Your task to perform on an android device: turn on showing notifications on the lock screen Image 0: 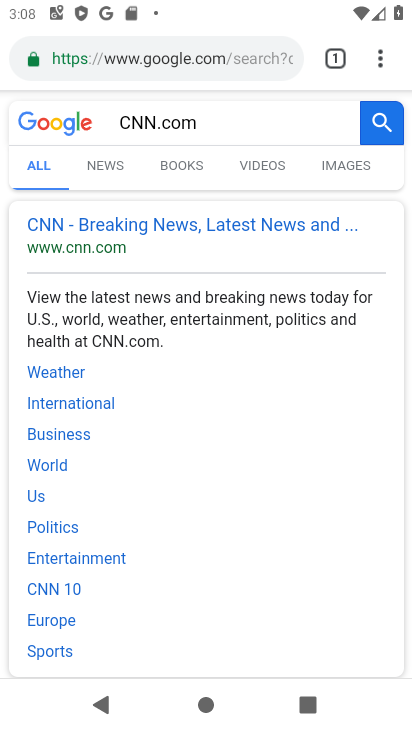
Step 0: press home button
Your task to perform on an android device: turn on showing notifications on the lock screen Image 1: 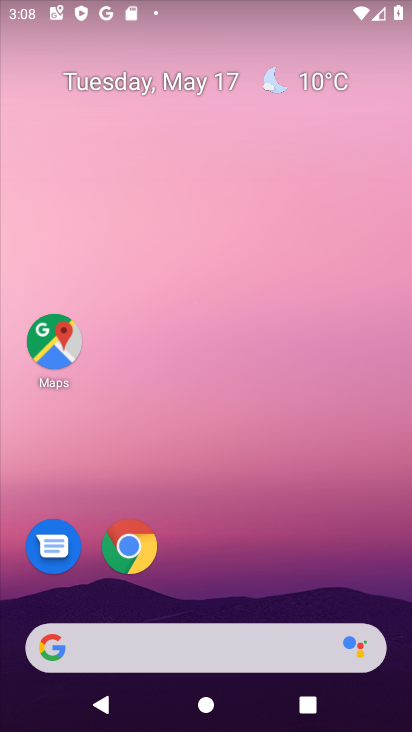
Step 1: drag from (196, 490) to (271, 0)
Your task to perform on an android device: turn on showing notifications on the lock screen Image 2: 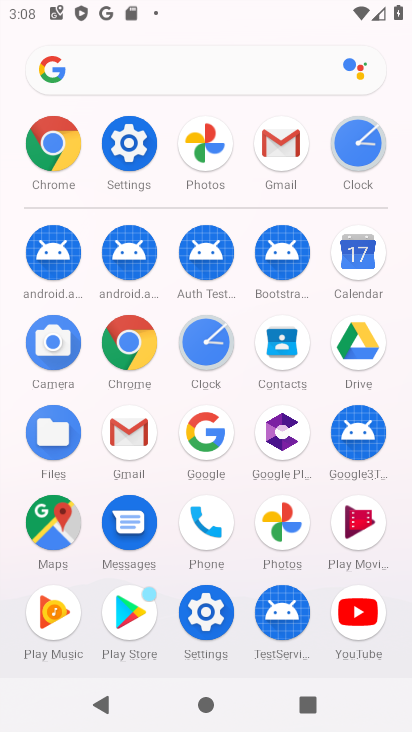
Step 2: click (123, 171)
Your task to perform on an android device: turn on showing notifications on the lock screen Image 3: 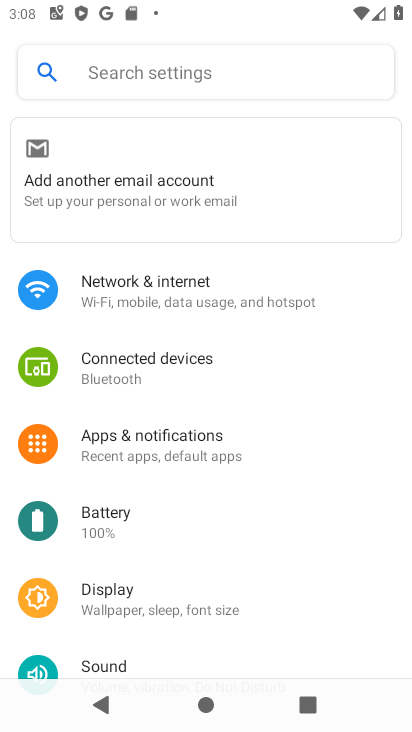
Step 3: drag from (140, 572) to (204, 336)
Your task to perform on an android device: turn on showing notifications on the lock screen Image 4: 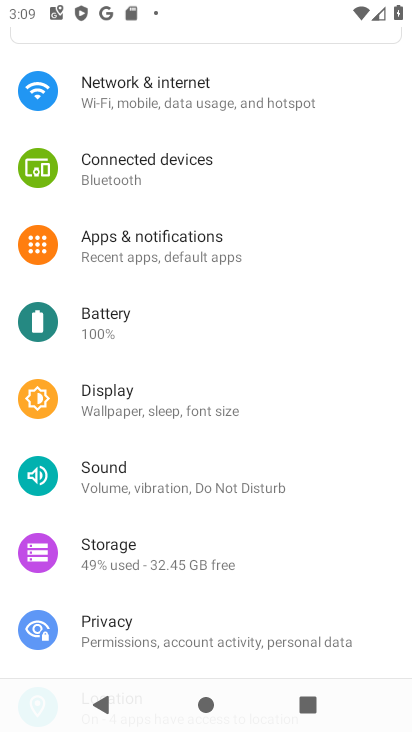
Step 4: click (174, 257)
Your task to perform on an android device: turn on showing notifications on the lock screen Image 5: 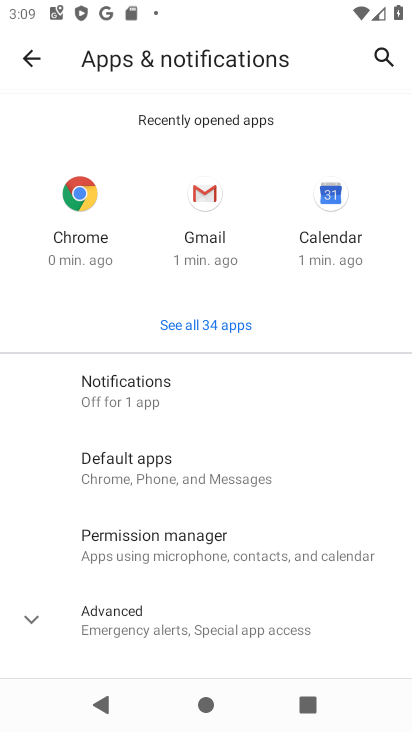
Step 5: drag from (198, 519) to (273, 248)
Your task to perform on an android device: turn on showing notifications on the lock screen Image 6: 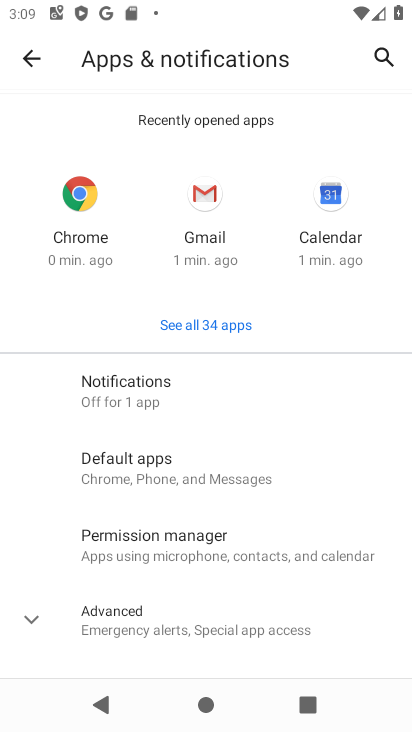
Step 6: click (176, 398)
Your task to perform on an android device: turn on showing notifications on the lock screen Image 7: 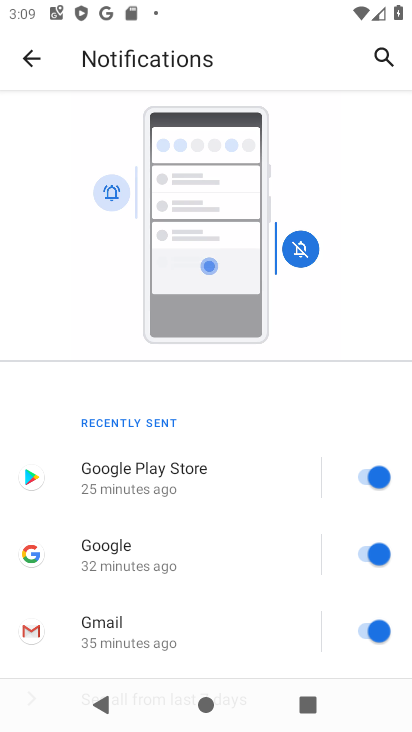
Step 7: drag from (202, 592) to (259, 201)
Your task to perform on an android device: turn on showing notifications on the lock screen Image 8: 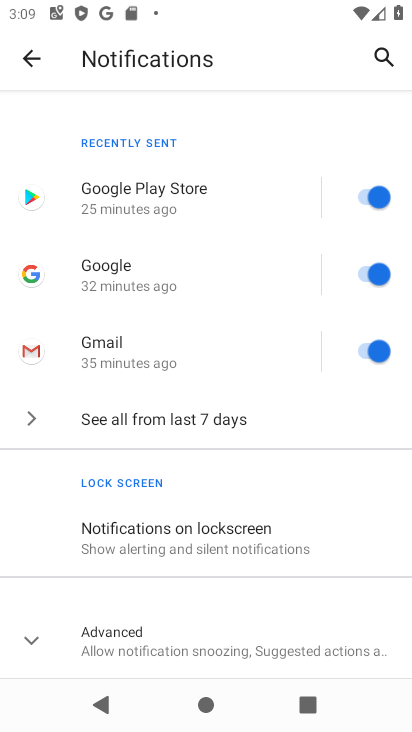
Step 8: click (183, 545)
Your task to perform on an android device: turn on showing notifications on the lock screen Image 9: 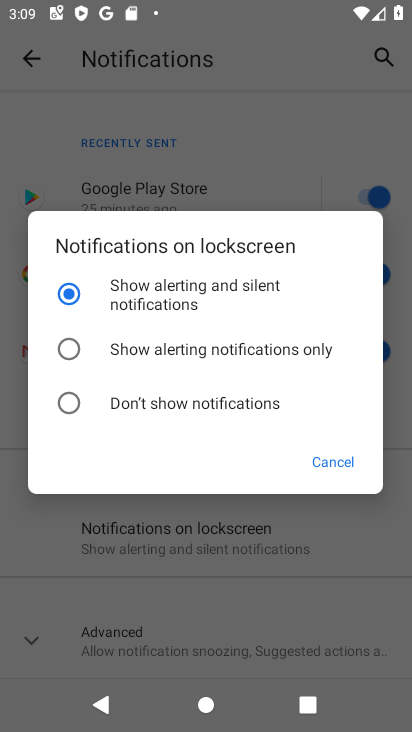
Step 9: task complete